Your task to perform on an android device: manage bookmarks in the chrome app Image 0: 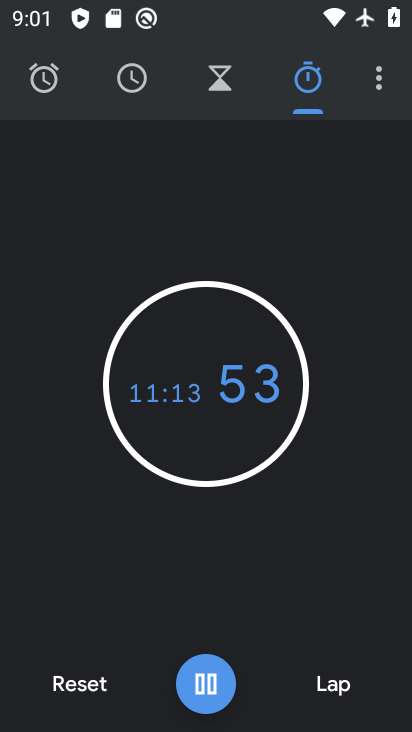
Step 0: press home button
Your task to perform on an android device: manage bookmarks in the chrome app Image 1: 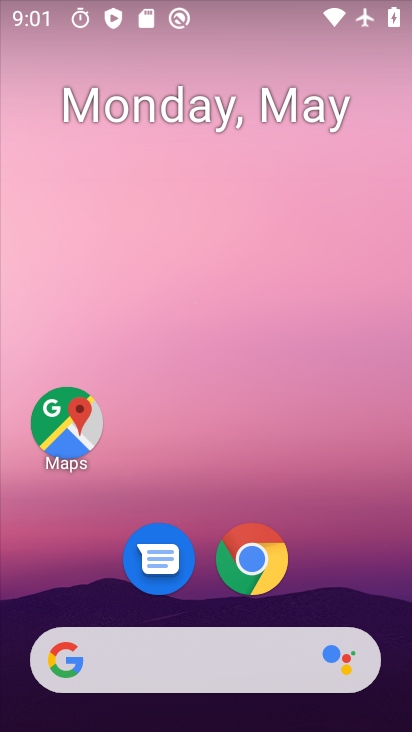
Step 1: click (254, 555)
Your task to perform on an android device: manage bookmarks in the chrome app Image 2: 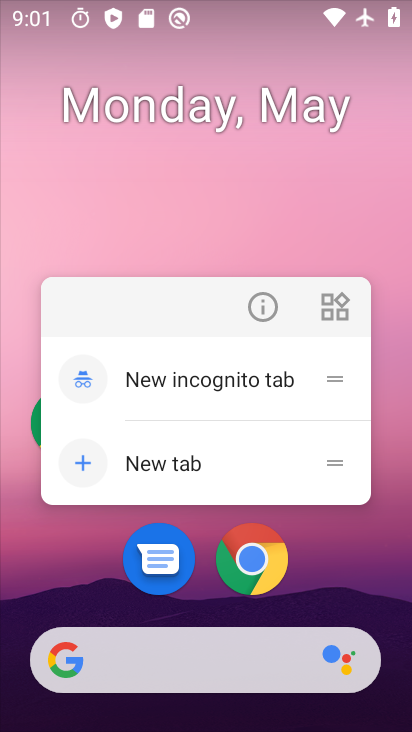
Step 2: click (250, 555)
Your task to perform on an android device: manage bookmarks in the chrome app Image 3: 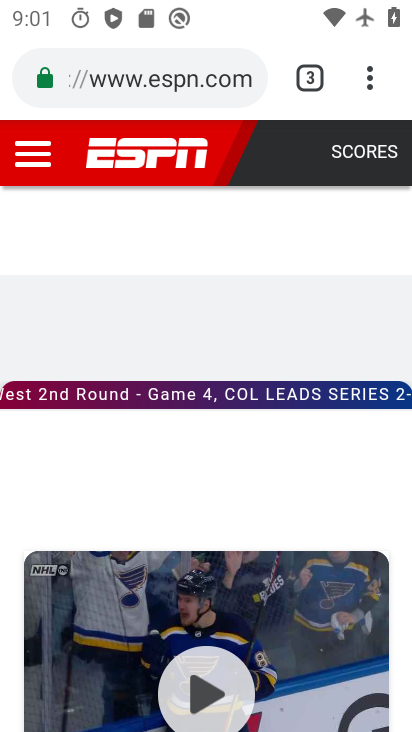
Step 3: click (358, 87)
Your task to perform on an android device: manage bookmarks in the chrome app Image 4: 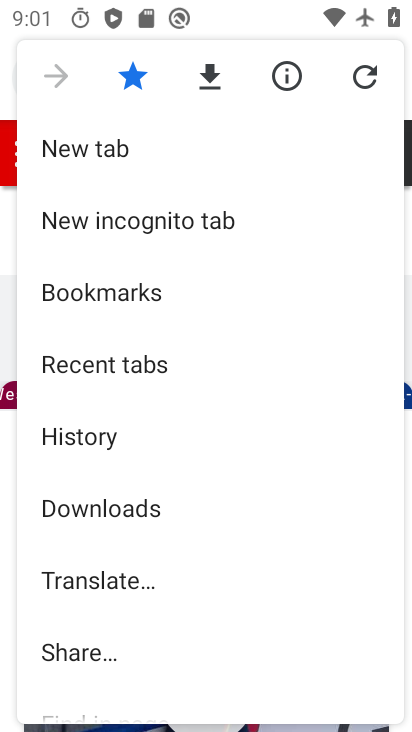
Step 4: click (107, 308)
Your task to perform on an android device: manage bookmarks in the chrome app Image 5: 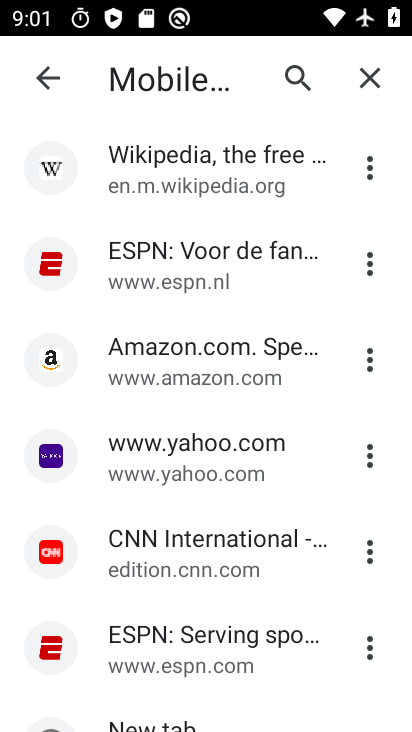
Step 5: click (363, 171)
Your task to perform on an android device: manage bookmarks in the chrome app Image 6: 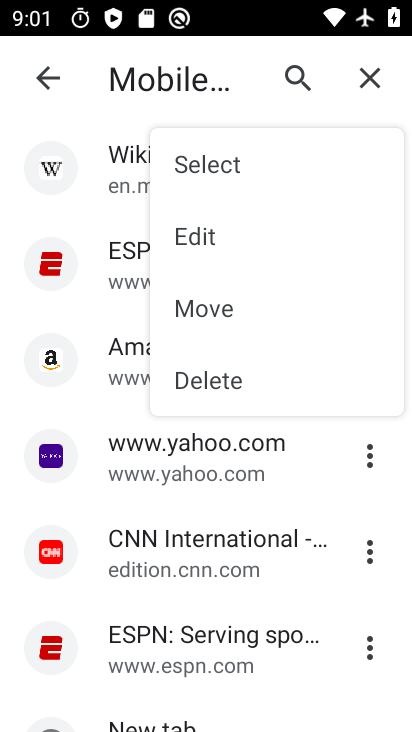
Step 6: click (217, 385)
Your task to perform on an android device: manage bookmarks in the chrome app Image 7: 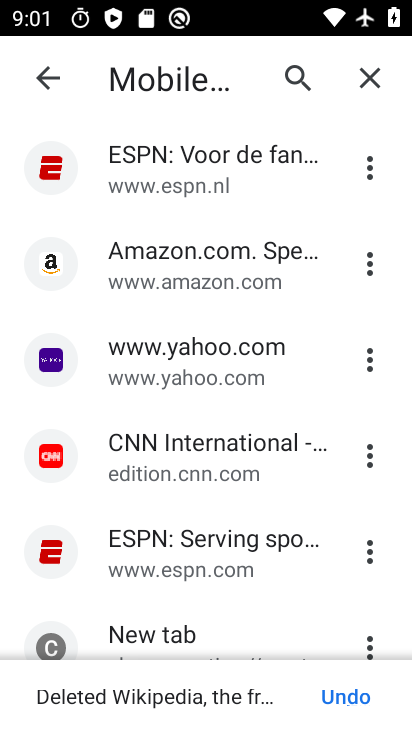
Step 7: task complete